Your task to perform on an android device: check out phone information Image 0: 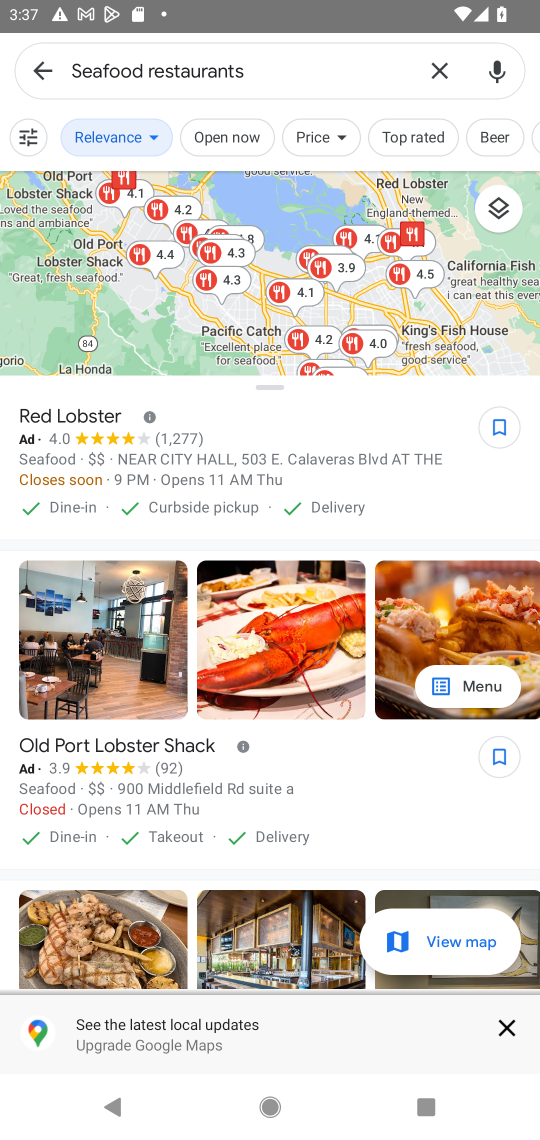
Step 0: press home button
Your task to perform on an android device: check out phone information Image 1: 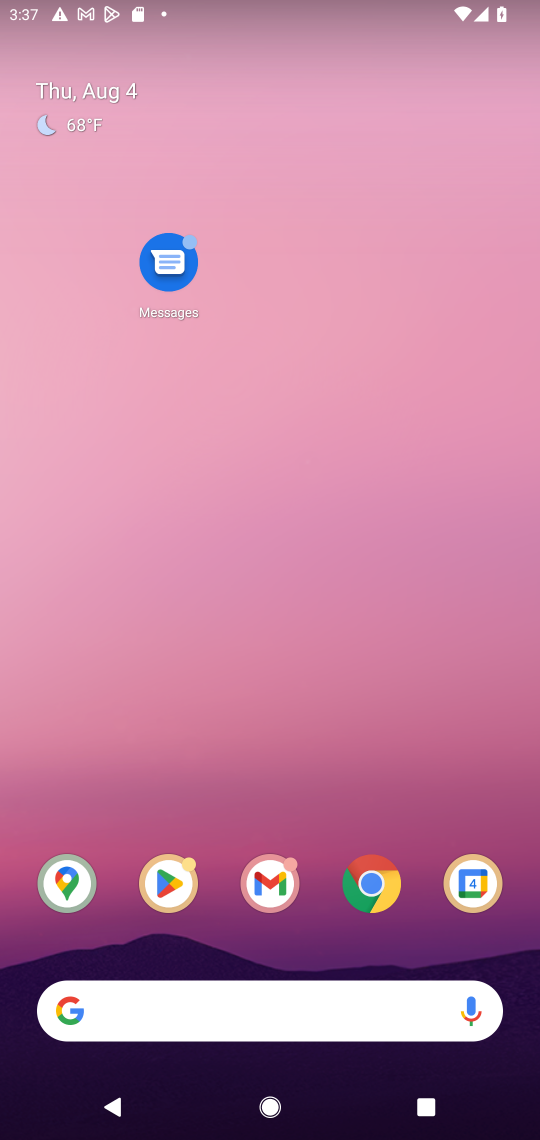
Step 1: drag from (312, 862) to (333, 166)
Your task to perform on an android device: check out phone information Image 2: 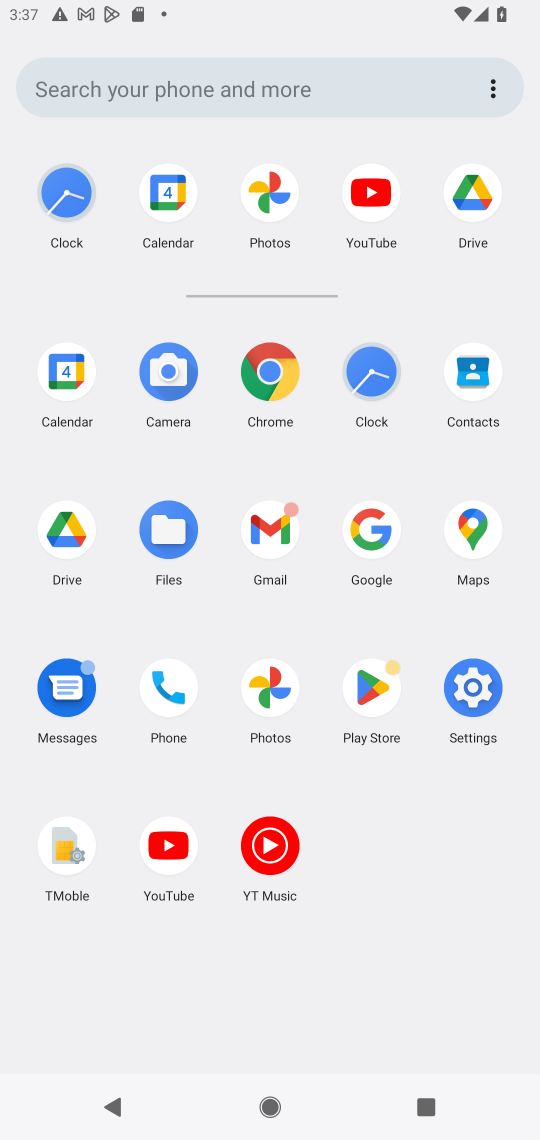
Step 2: click (470, 686)
Your task to perform on an android device: check out phone information Image 3: 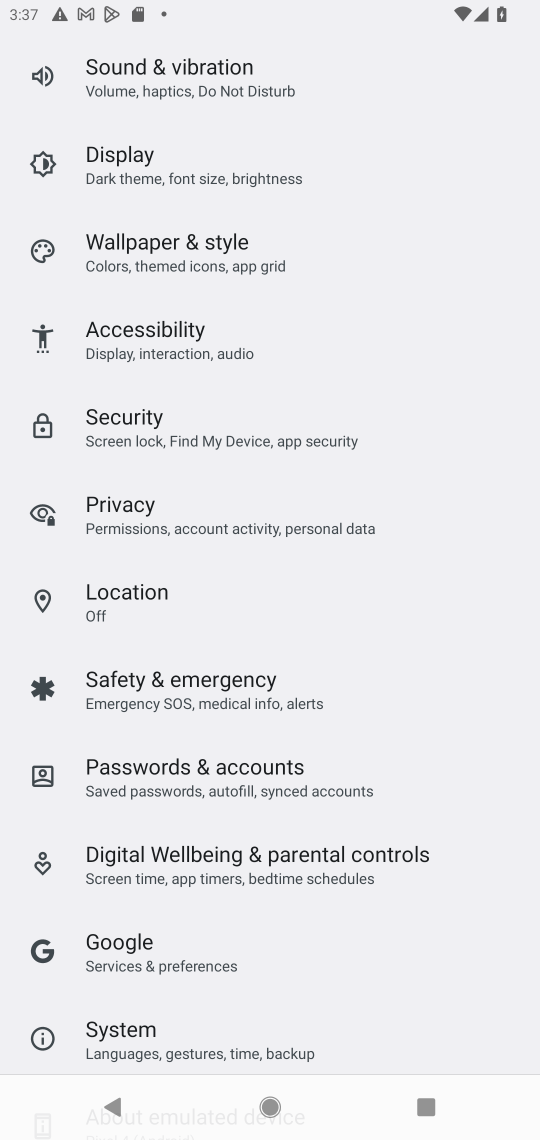
Step 3: drag from (335, 1003) to (329, 332)
Your task to perform on an android device: check out phone information Image 4: 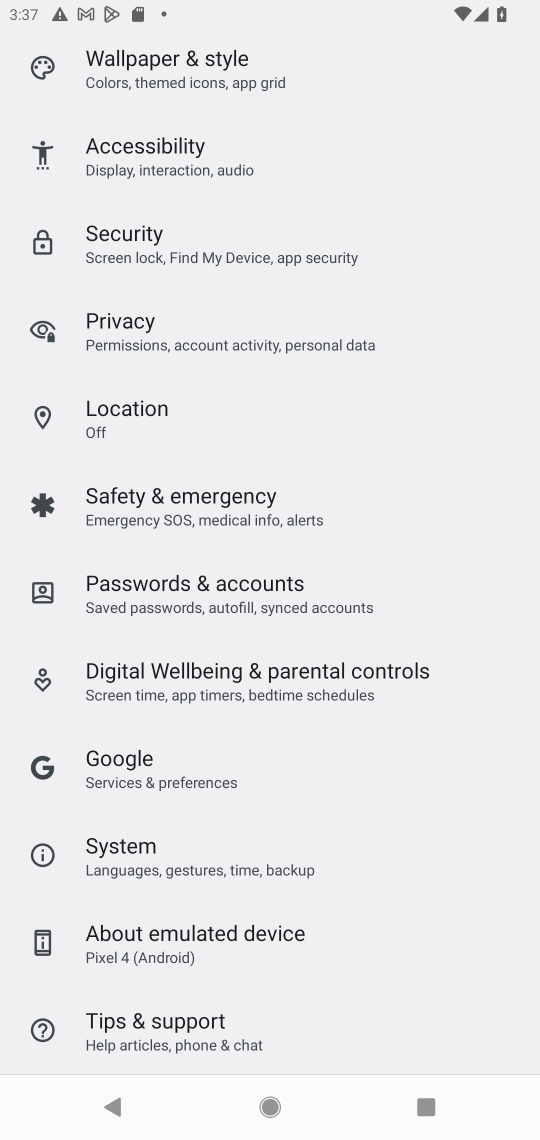
Step 4: click (191, 939)
Your task to perform on an android device: check out phone information Image 5: 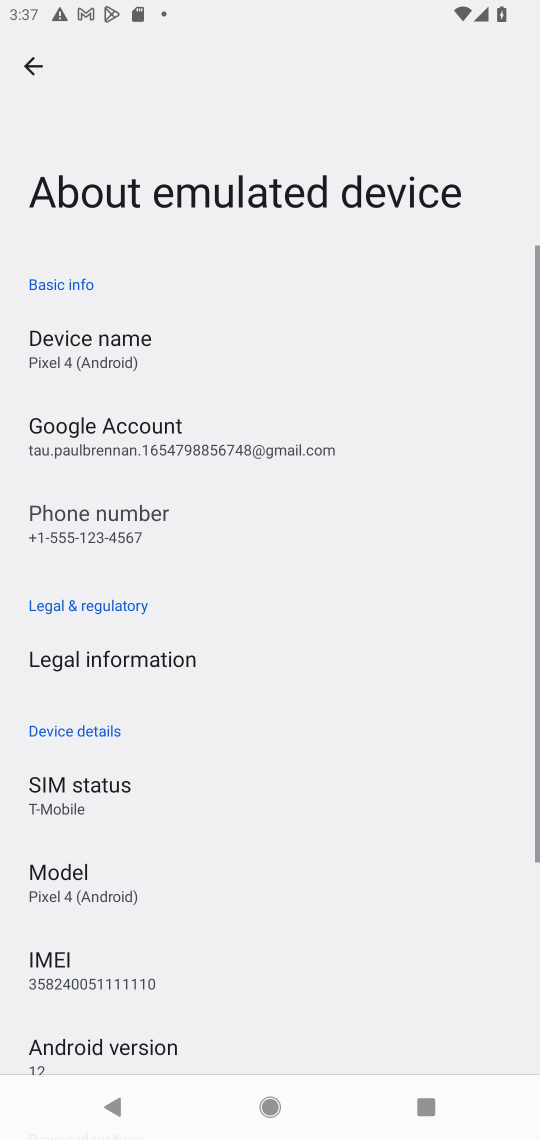
Step 5: task complete